Your task to perform on an android device: Search for pizza restaurants on Maps Image 0: 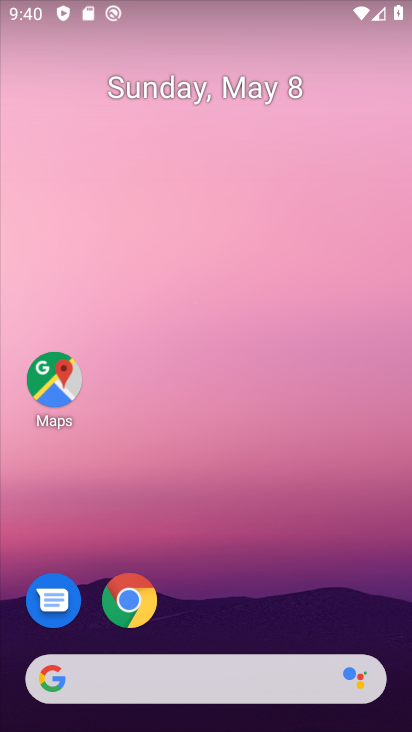
Step 0: click (55, 394)
Your task to perform on an android device: Search for pizza restaurants on Maps Image 1: 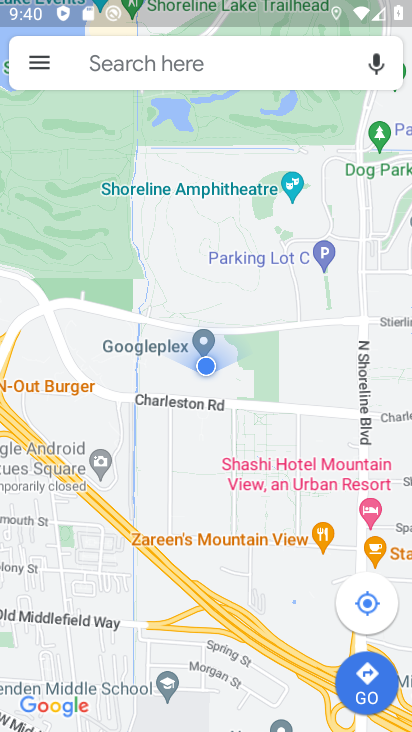
Step 1: click (171, 66)
Your task to perform on an android device: Search for pizza restaurants on Maps Image 2: 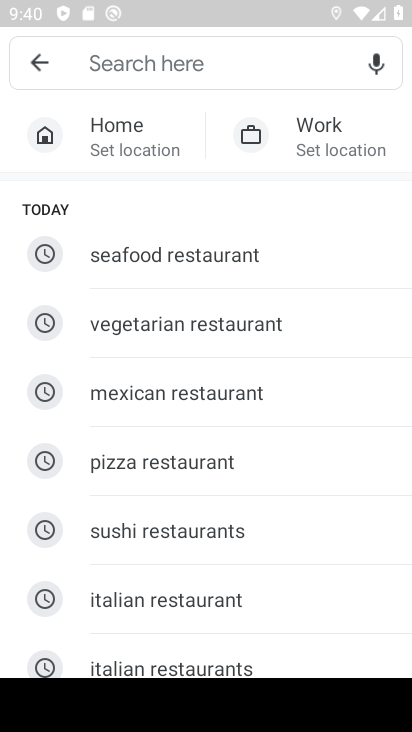
Step 2: click (119, 468)
Your task to perform on an android device: Search for pizza restaurants on Maps Image 3: 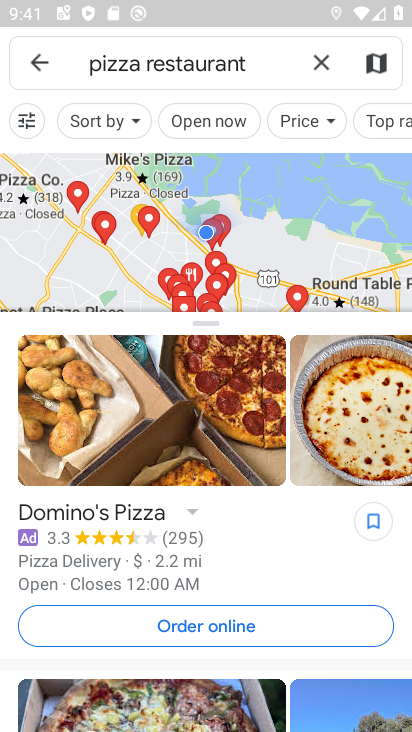
Step 3: task complete